Your task to perform on an android device: Open privacy settings Image 0: 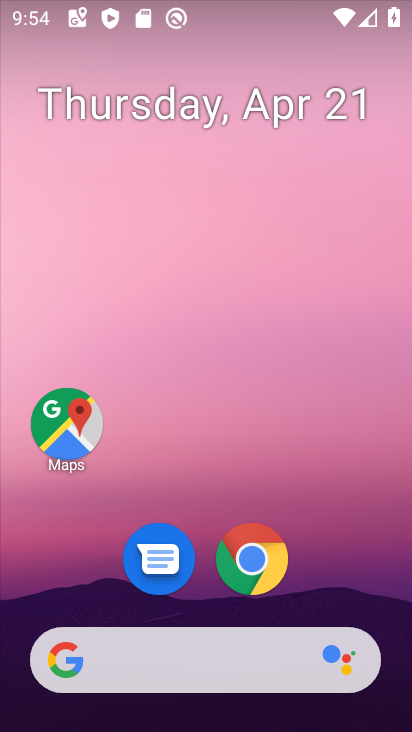
Step 0: drag from (259, 540) to (321, 205)
Your task to perform on an android device: Open privacy settings Image 1: 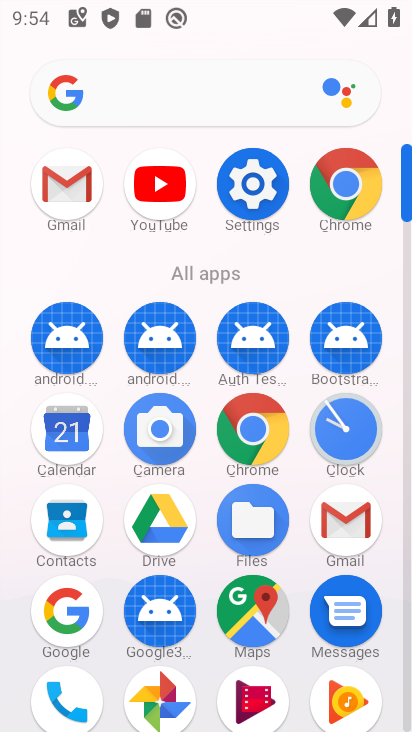
Step 1: click (263, 198)
Your task to perform on an android device: Open privacy settings Image 2: 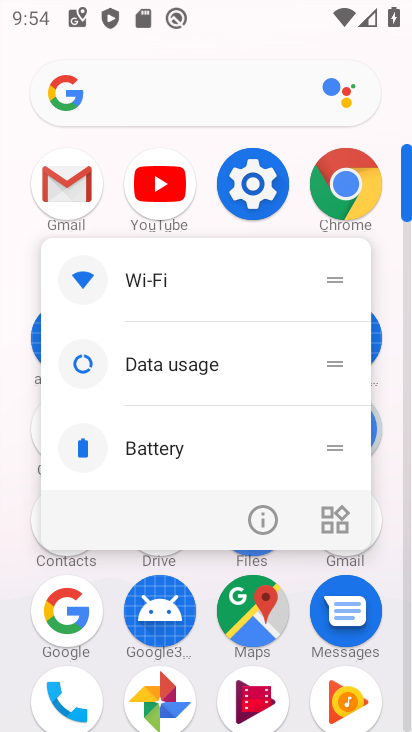
Step 2: click (263, 198)
Your task to perform on an android device: Open privacy settings Image 3: 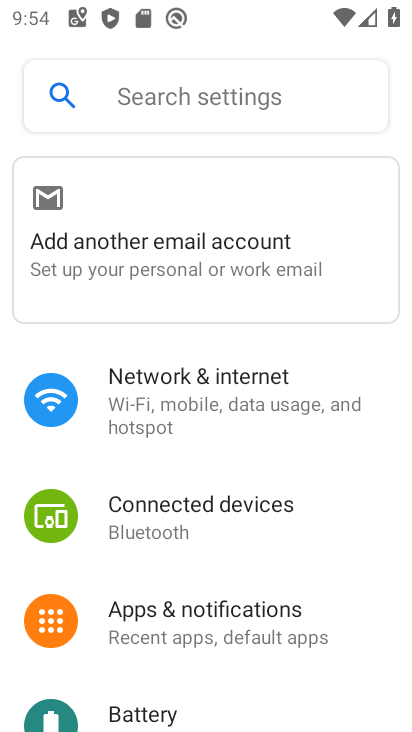
Step 3: drag from (161, 575) to (247, 146)
Your task to perform on an android device: Open privacy settings Image 4: 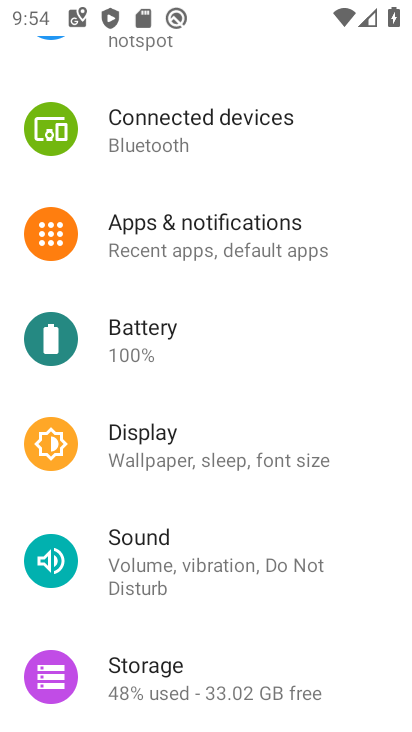
Step 4: drag from (174, 570) to (273, 256)
Your task to perform on an android device: Open privacy settings Image 5: 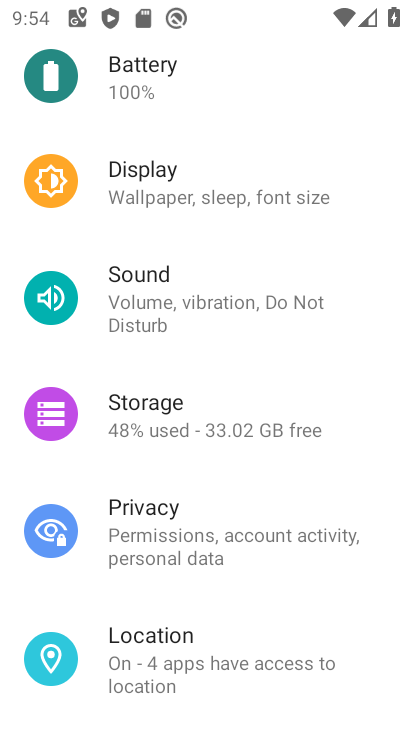
Step 5: click (175, 523)
Your task to perform on an android device: Open privacy settings Image 6: 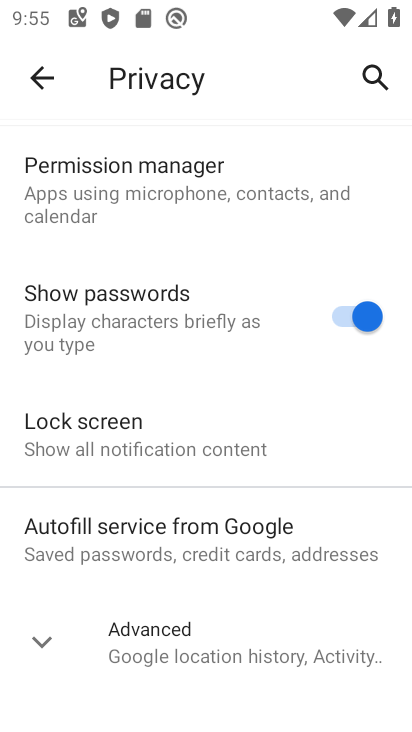
Step 6: task complete